Your task to perform on an android device: allow cookies in the chrome app Image 0: 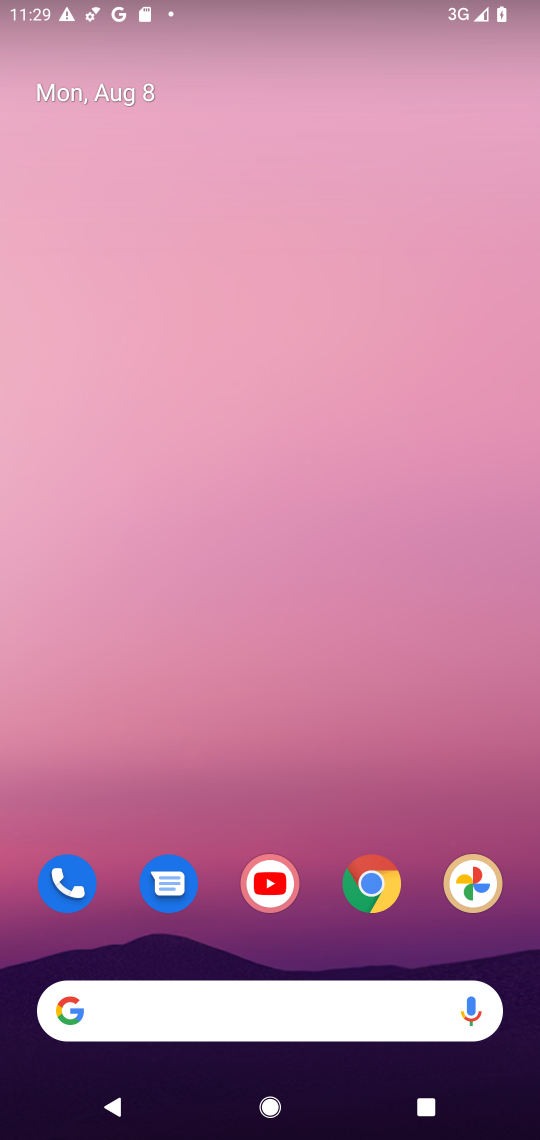
Step 0: press home button
Your task to perform on an android device: allow cookies in the chrome app Image 1: 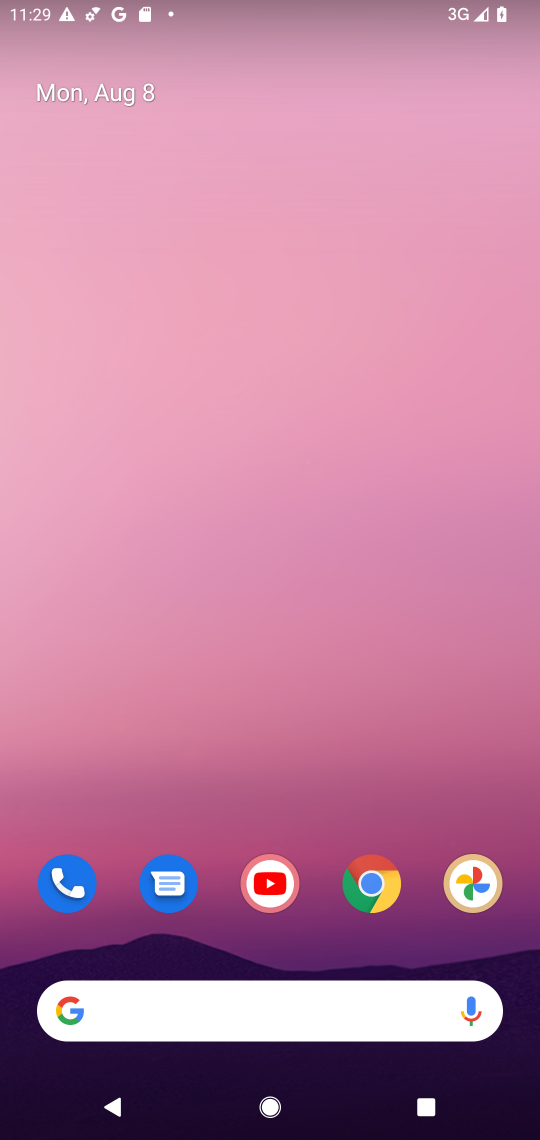
Step 1: click (366, 876)
Your task to perform on an android device: allow cookies in the chrome app Image 2: 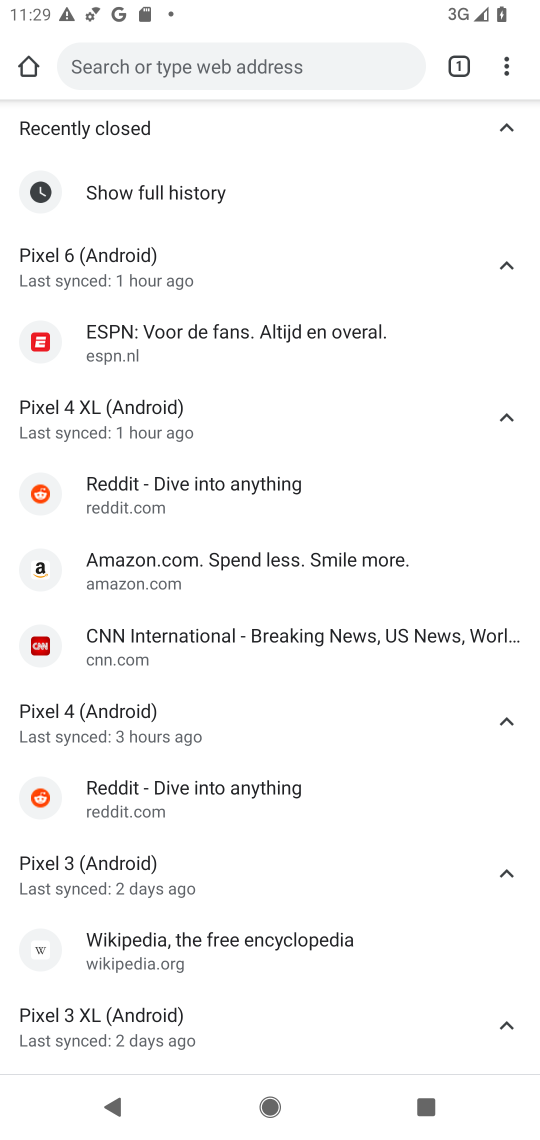
Step 2: click (510, 67)
Your task to perform on an android device: allow cookies in the chrome app Image 3: 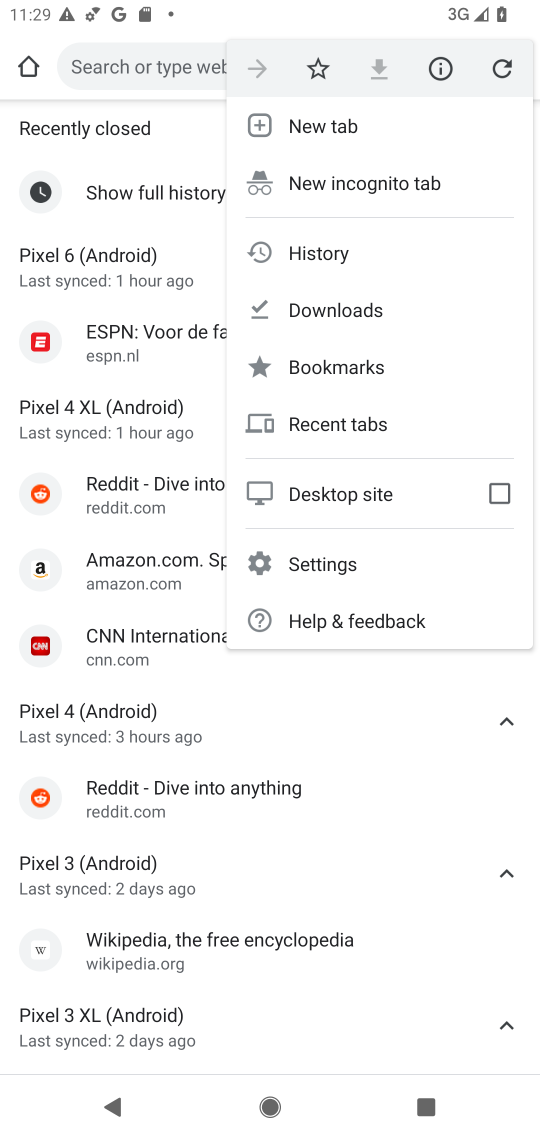
Step 3: click (371, 554)
Your task to perform on an android device: allow cookies in the chrome app Image 4: 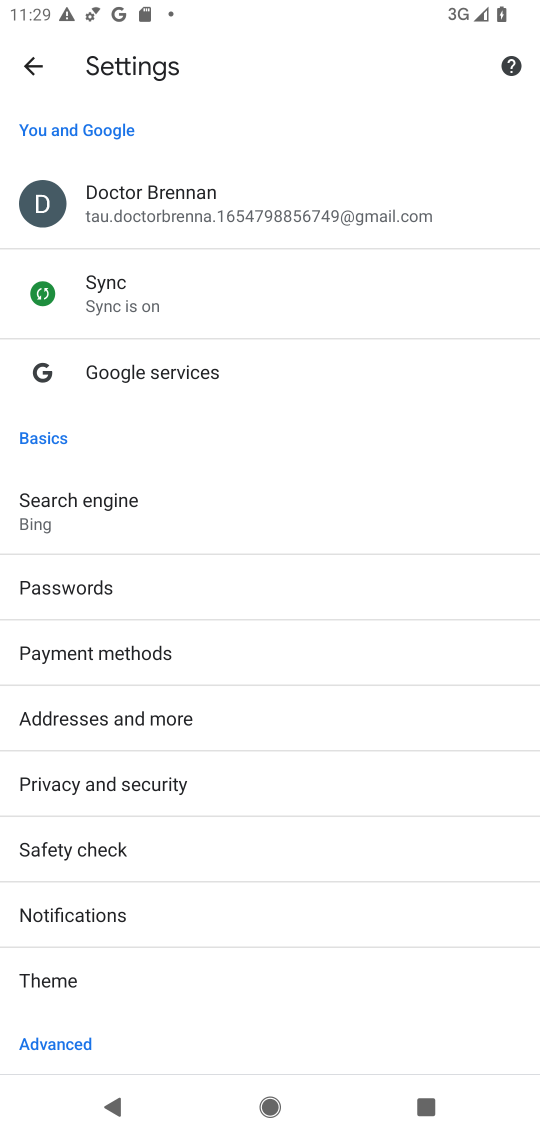
Step 4: drag from (248, 951) to (283, 136)
Your task to perform on an android device: allow cookies in the chrome app Image 5: 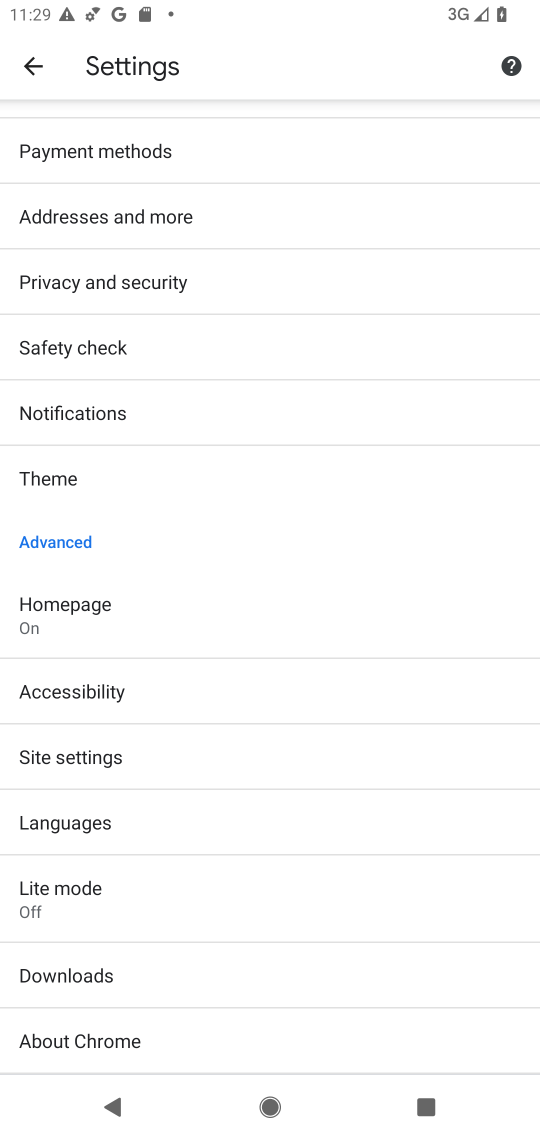
Step 5: click (134, 754)
Your task to perform on an android device: allow cookies in the chrome app Image 6: 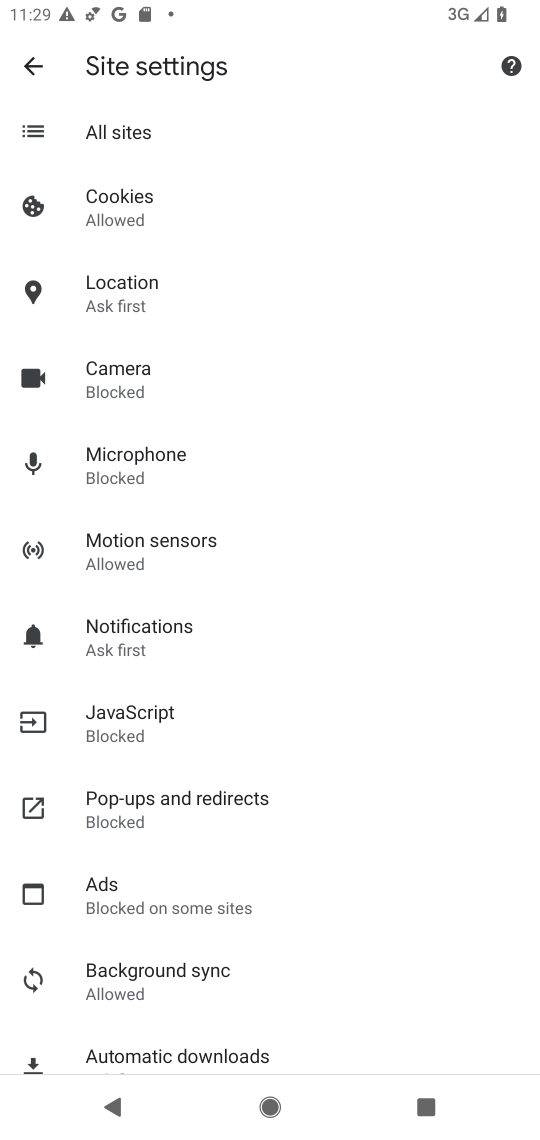
Step 6: click (183, 191)
Your task to perform on an android device: allow cookies in the chrome app Image 7: 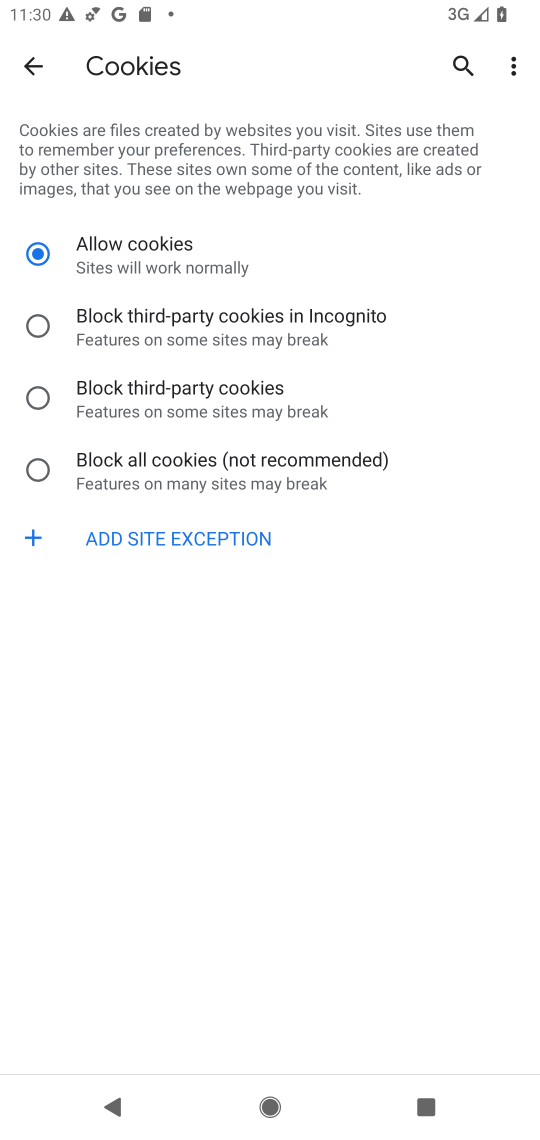
Step 7: task complete